Your task to perform on an android device: uninstall "Viber Messenger" Image 0: 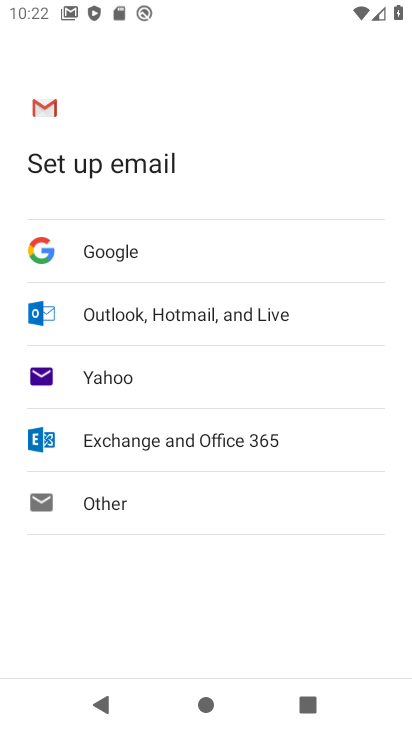
Step 0: press home button
Your task to perform on an android device: uninstall "Viber Messenger" Image 1: 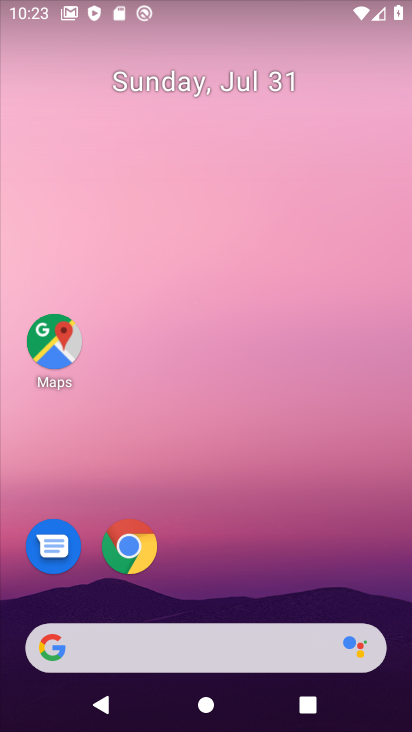
Step 1: drag from (248, 664) to (274, 125)
Your task to perform on an android device: uninstall "Viber Messenger" Image 2: 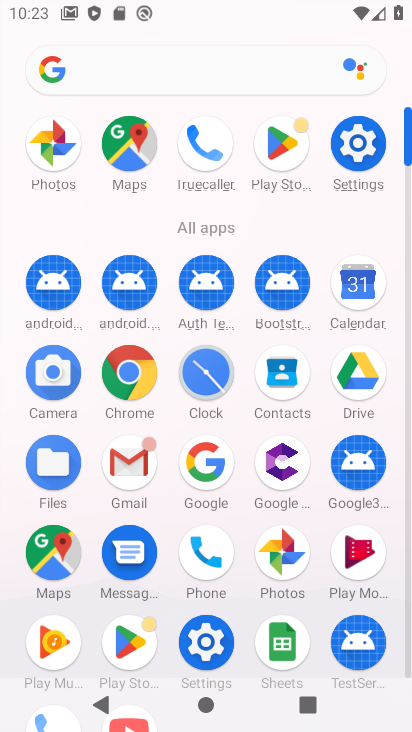
Step 2: click (292, 137)
Your task to perform on an android device: uninstall "Viber Messenger" Image 3: 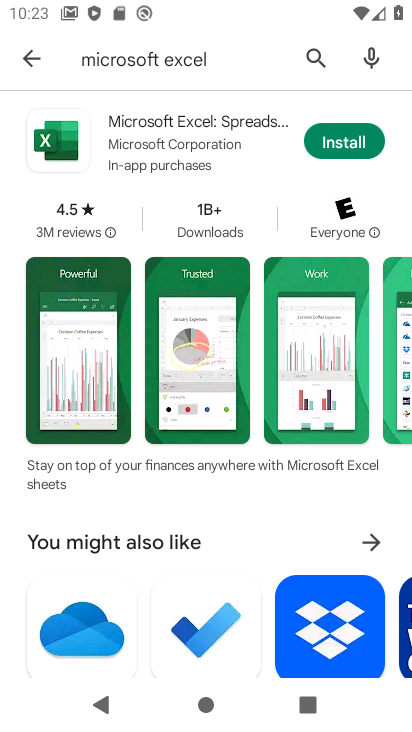
Step 3: click (313, 57)
Your task to perform on an android device: uninstall "Viber Messenger" Image 4: 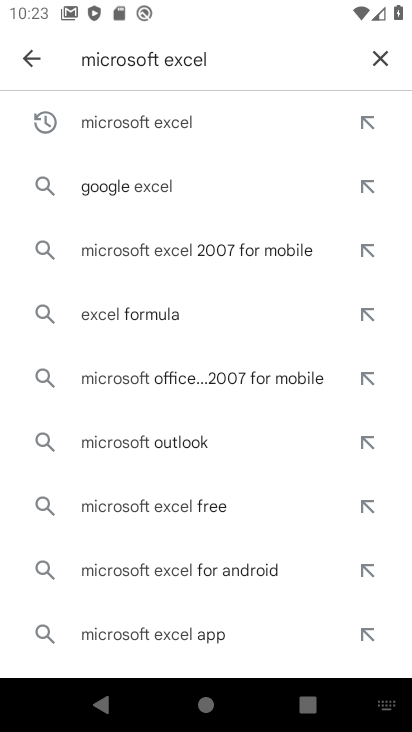
Step 4: click (388, 55)
Your task to perform on an android device: uninstall "Viber Messenger" Image 5: 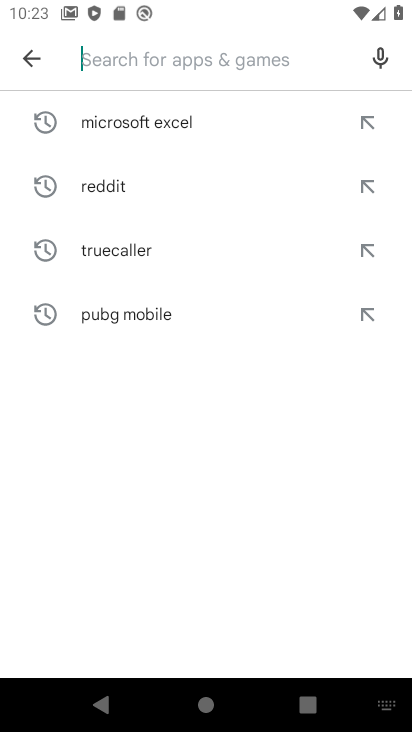
Step 5: type "viber messenger"
Your task to perform on an android device: uninstall "Viber Messenger" Image 6: 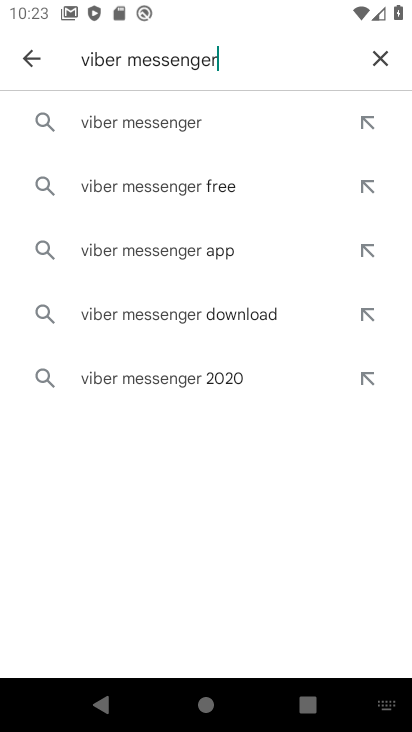
Step 6: click (203, 128)
Your task to perform on an android device: uninstall "Viber Messenger" Image 7: 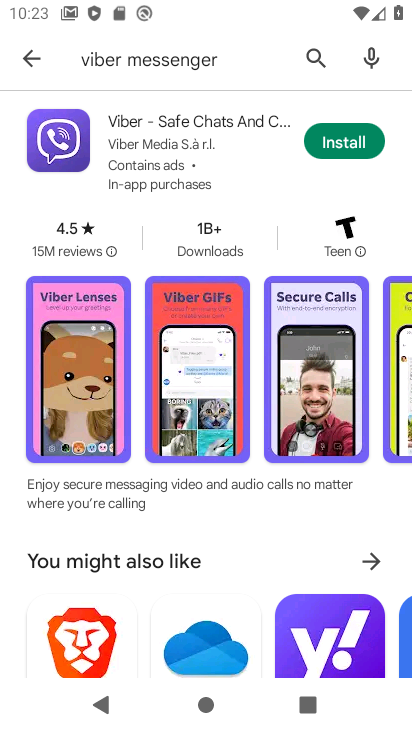
Step 7: task complete